Your task to perform on an android device: delete browsing data in the chrome app Image 0: 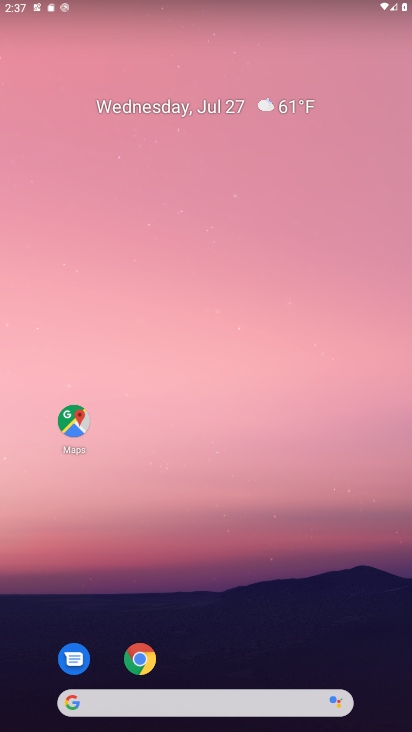
Step 0: click (135, 676)
Your task to perform on an android device: delete browsing data in the chrome app Image 1: 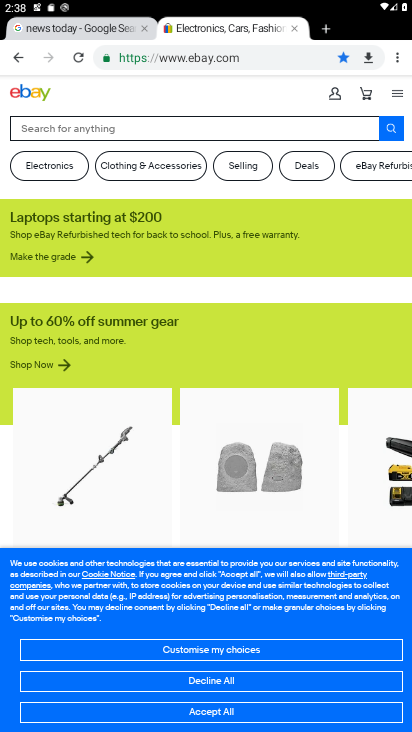
Step 1: drag from (400, 59) to (300, 379)
Your task to perform on an android device: delete browsing data in the chrome app Image 2: 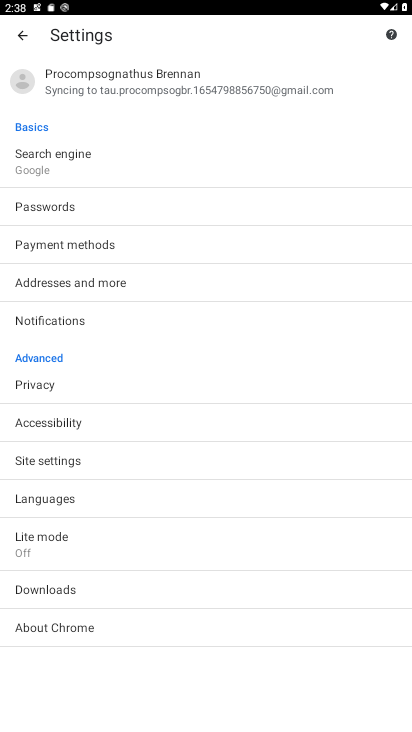
Step 2: click (58, 384)
Your task to perform on an android device: delete browsing data in the chrome app Image 3: 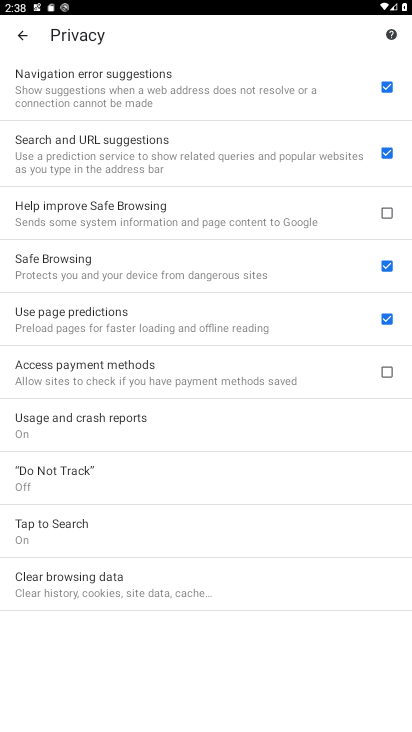
Step 3: click (146, 592)
Your task to perform on an android device: delete browsing data in the chrome app Image 4: 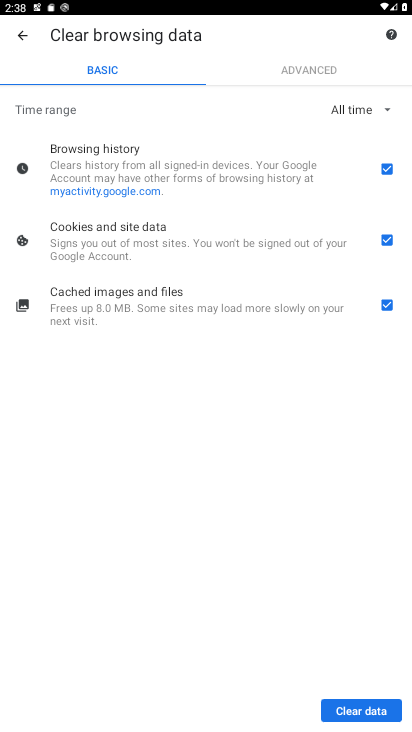
Step 4: click (353, 709)
Your task to perform on an android device: delete browsing data in the chrome app Image 5: 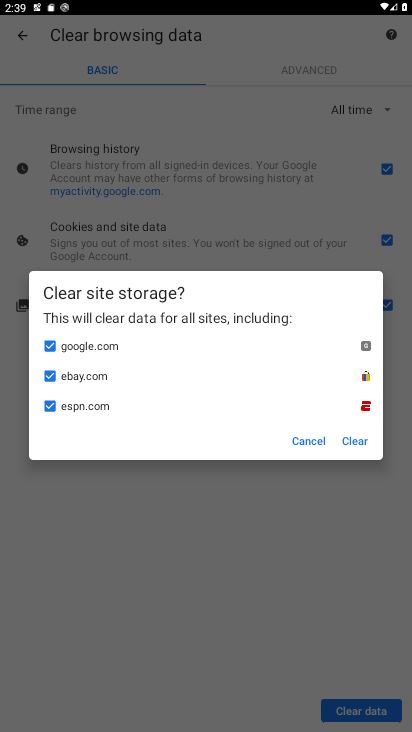
Step 5: click (350, 441)
Your task to perform on an android device: delete browsing data in the chrome app Image 6: 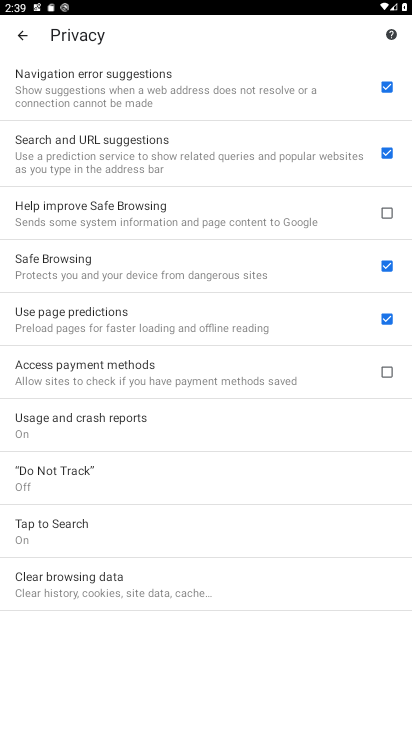
Step 6: task complete